Your task to perform on an android device: What's on my calendar tomorrow? Image 0: 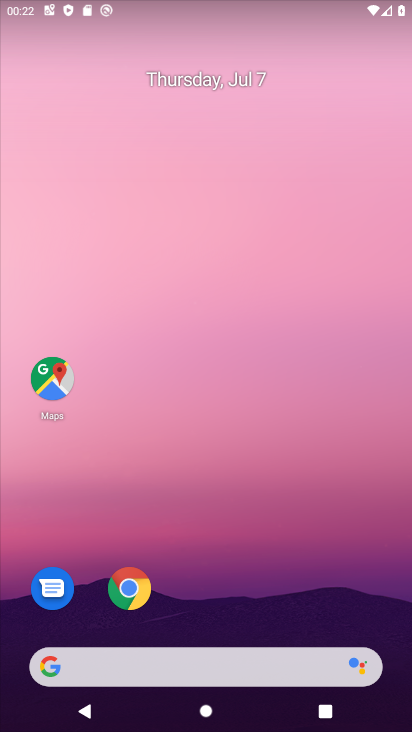
Step 0: drag from (223, 599) to (195, 123)
Your task to perform on an android device: What's on my calendar tomorrow? Image 1: 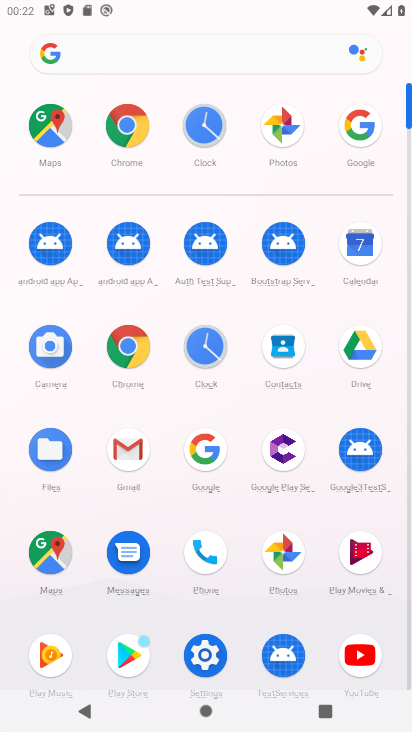
Step 1: click (364, 247)
Your task to perform on an android device: What's on my calendar tomorrow? Image 2: 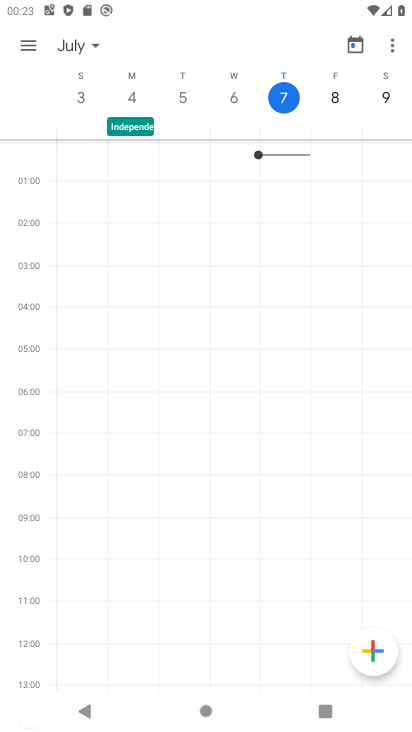
Step 2: click (74, 44)
Your task to perform on an android device: What's on my calendar tomorrow? Image 3: 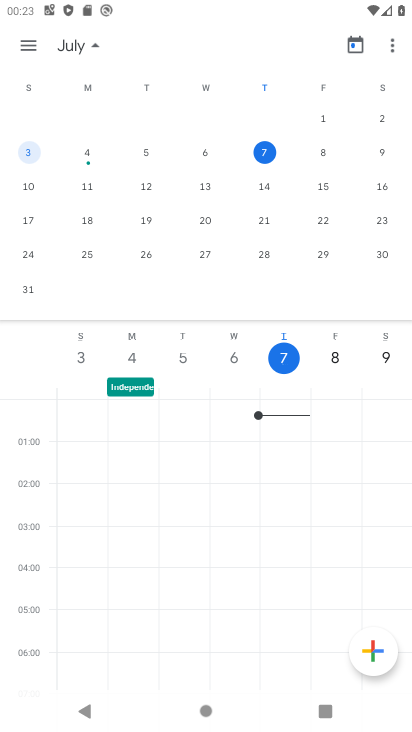
Step 3: click (321, 147)
Your task to perform on an android device: What's on my calendar tomorrow? Image 4: 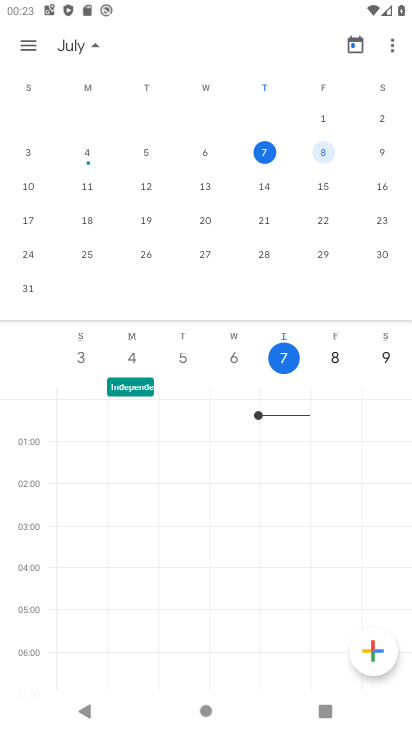
Step 4: click (321, 147)
Your task to perform on an android device: What's on my calendar tomorrow? Image 5: 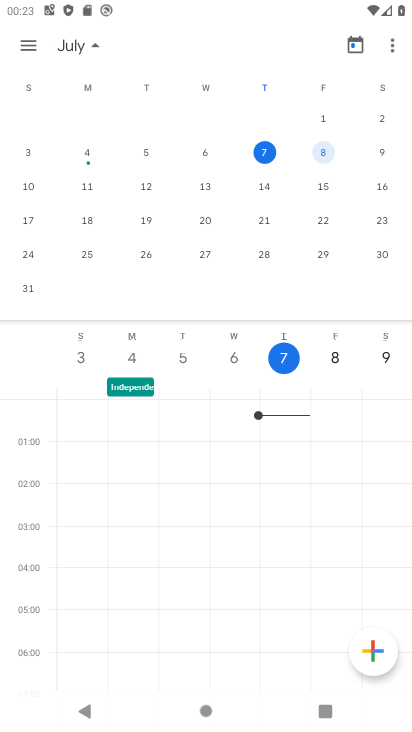
Step 5: click (321, 147)
Your task to perform on an android device: What's on my calendar tomorrow? Image 6: 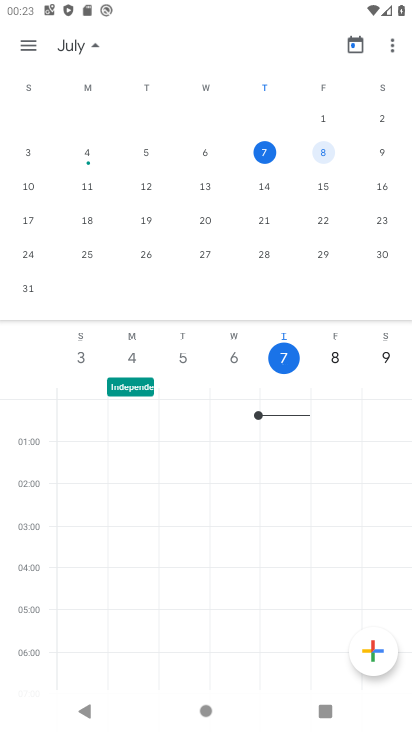
Step 6: click (321, 147)
Your task to perform on an android device: What's on my calendar tomorrow? Image 7: 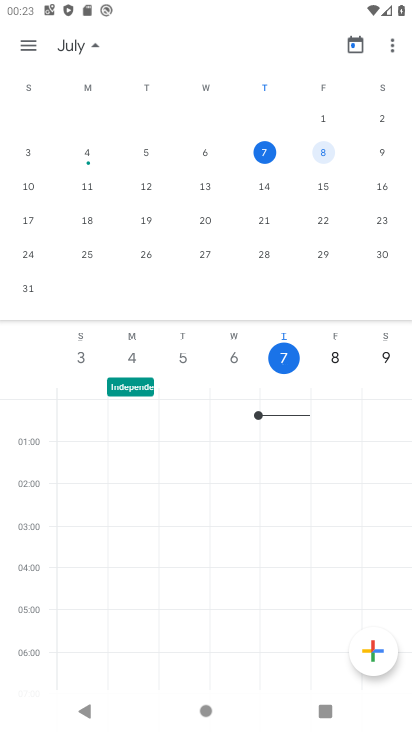
Step 7: click (334, 357)
Your task to perform on an android device: What's on my calendar tomorrow? Image 8: 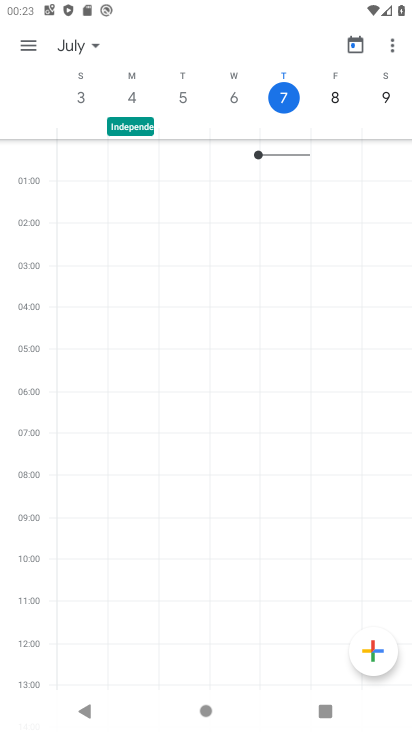
Step 8: click (334, 101)
Your task to perform on an android device: What's on my calendar tomorrow? Image 9: 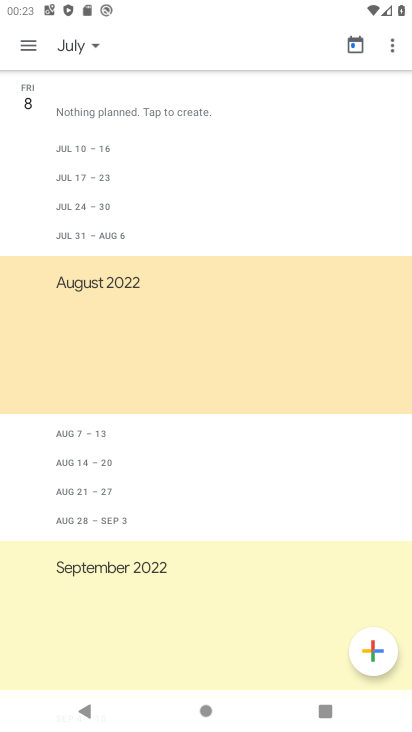
Step 9: task complete